Your task to perform on an android device: Go to wifi settings Image 0: 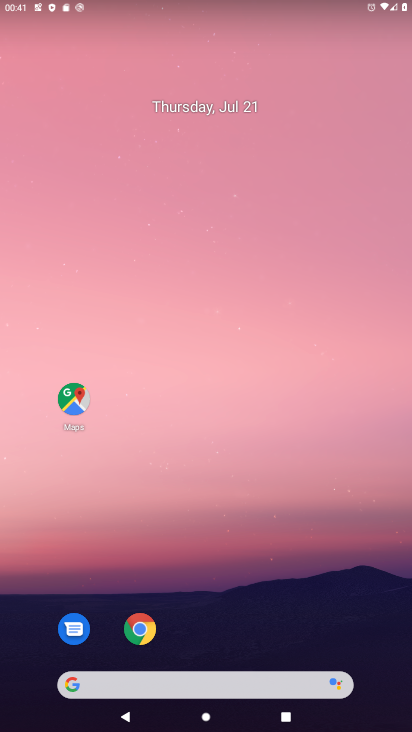
Step 0: press home button
Your task to perform on an android device: Go to wifi settings Image 1: 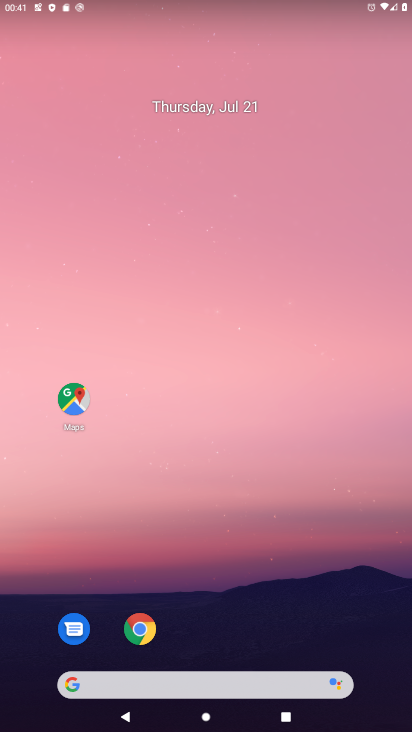
Step 1: click (211, 80)
Your task to perform on an android device: Go to wifi settings Image 2: 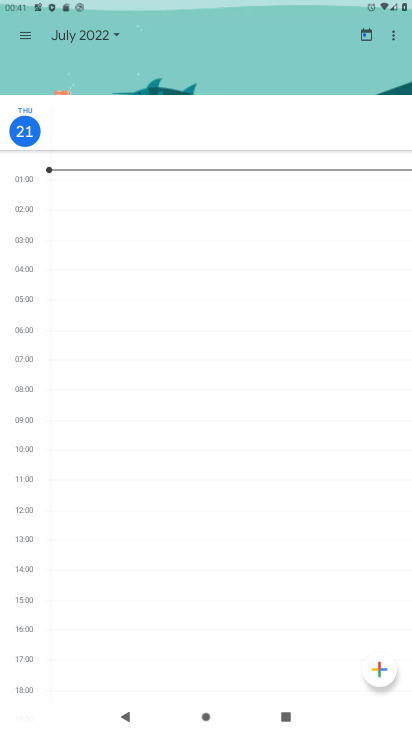
Step 2: press home button
Your task to perform on an android device: Go to wifi settings Image 3: 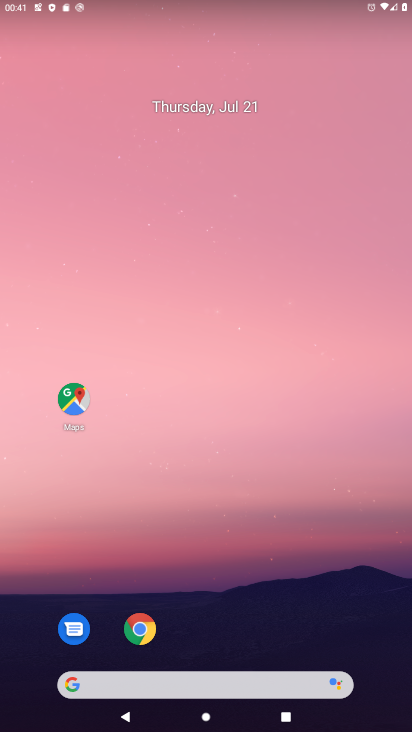
Step 3: drag from (269, 597) to (165, 110)
Your task to perform on an android device: Go to wifi settings Image 4: 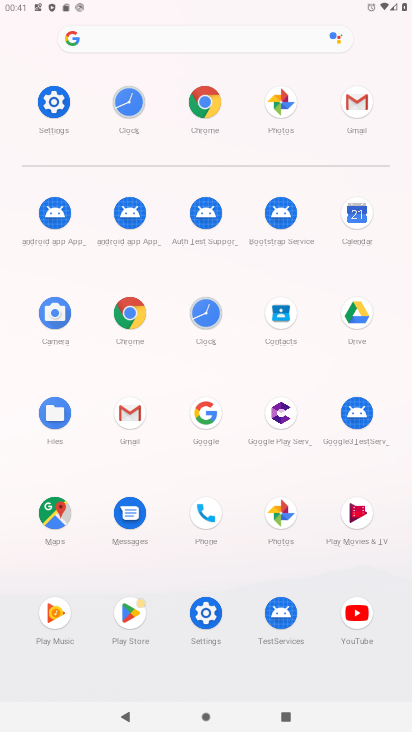
Step 4: click (44, 104)
Your task to perform on an android device: Go to wifi settings Image 5: 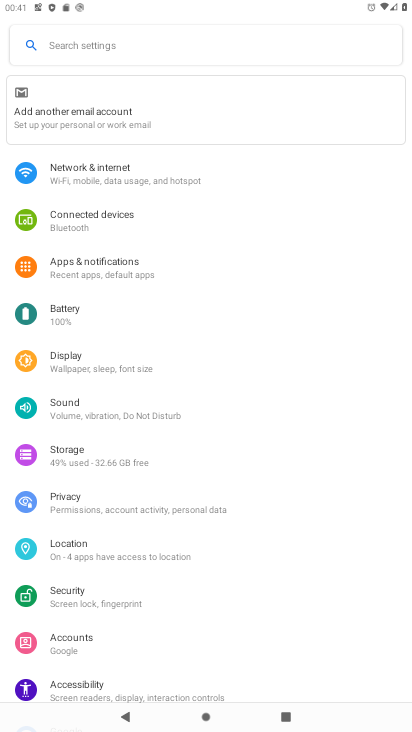
Step 5: click (58, 178)
Your task to perform on an android device: Go to wifi settings Image 6: 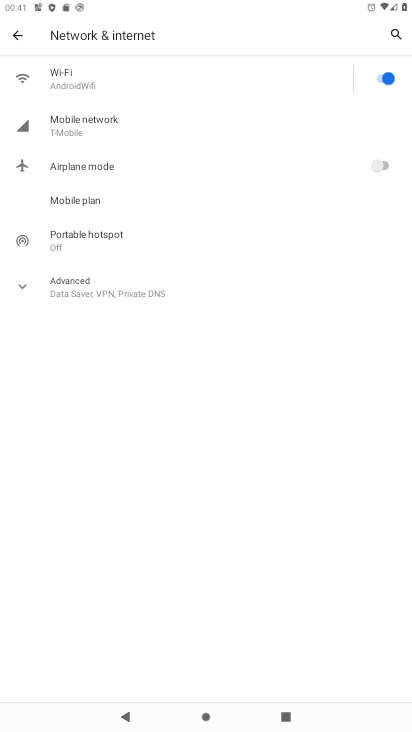
Step 6: click (131, 86)
Your task to perform on an android device: Go to wifi settings Image 7: 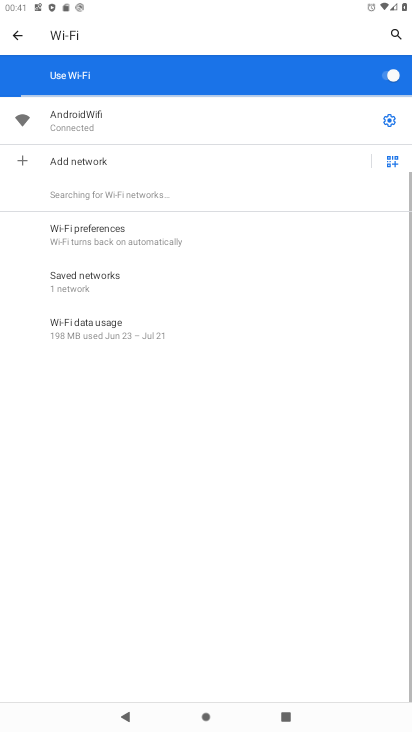
Step 7: click (388, 123)
Your task to perform on an android device: Go to wifi settings Image 8: 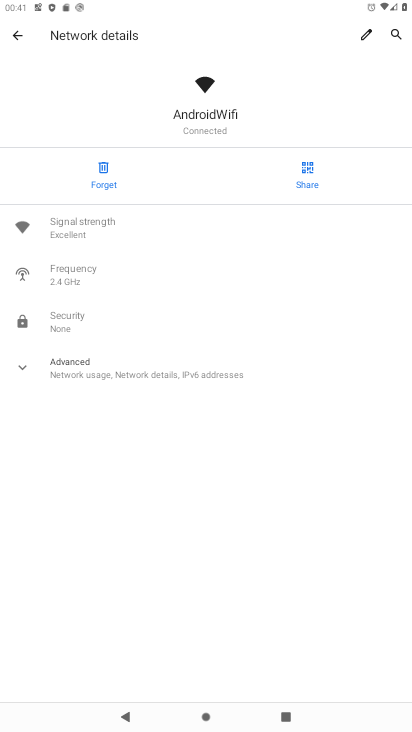
Step 8: task complete